Your task to perform on an android device: Show me popular videos on Youtube Image 0: 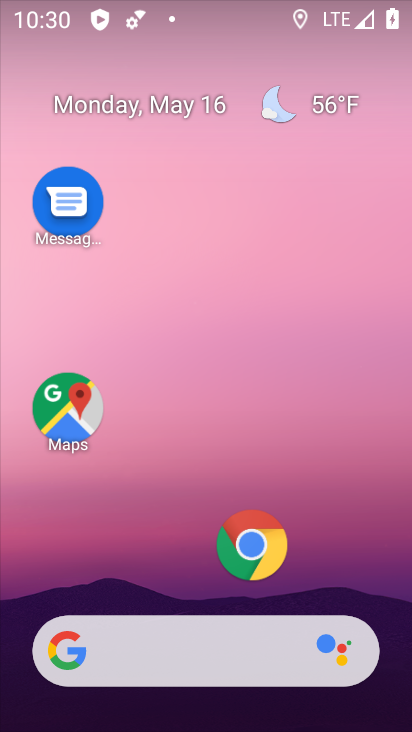
Step 0: drag from (175, 591) to (86, 5)
Your task to perform on an android device: Show me popular videos on Youtube Image 1: 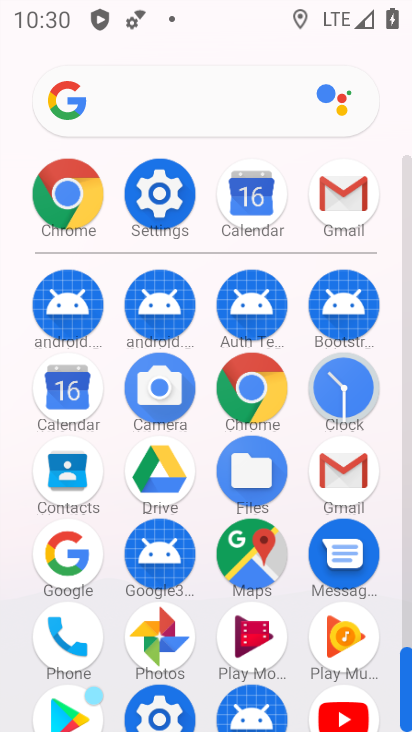
Step 1: click (326, 702)
Your task to perform on an android device: Show me popular videos on Youtube Image 2: 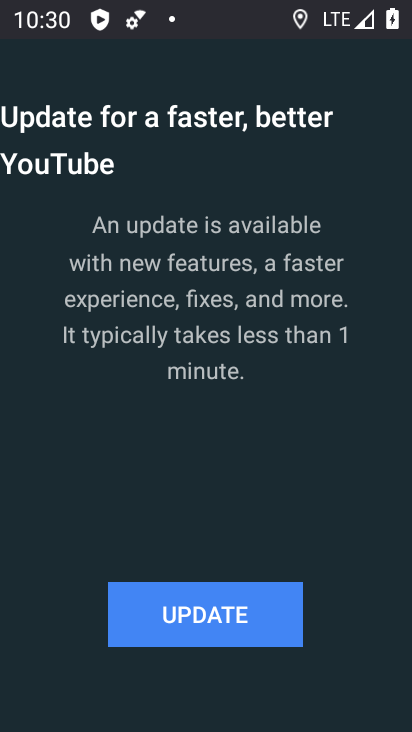
Step 2: click (142, 615)
Your task to perform on an android device: Show me popular videos on Youtube Image 3: 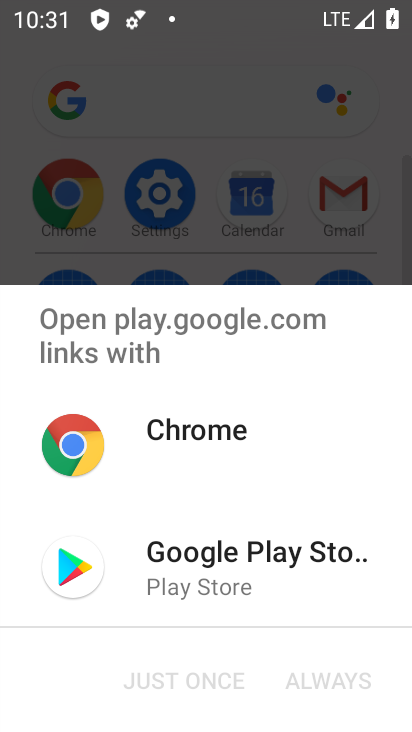
Step 3: click (216, 566)
Your task to perform on an android device: Show me popular videos on Youtube Image 4: 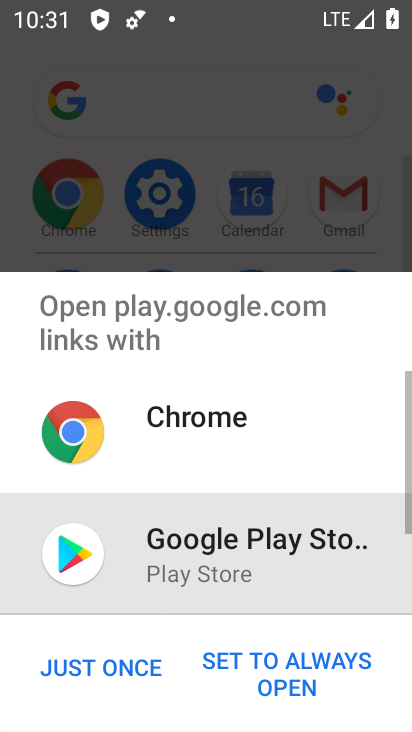
Step 4: click (70, 669)
Your task to perform on an android device: Show me popular videos on Youtube Image 5: 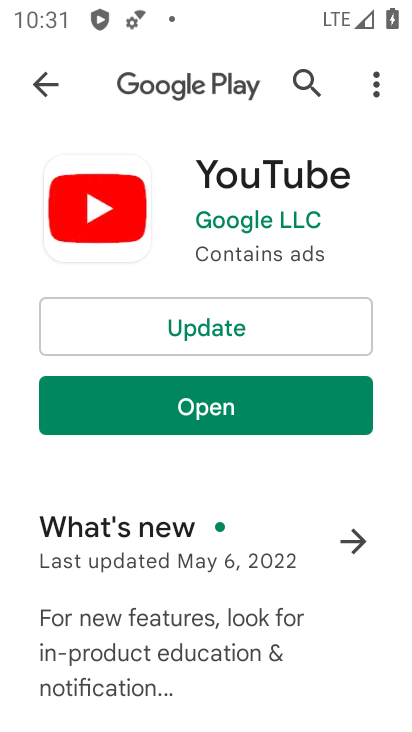
Step 5: click (168, 348)
Your task to perform on an android device: Show me popular videos on Youtube Image 6: 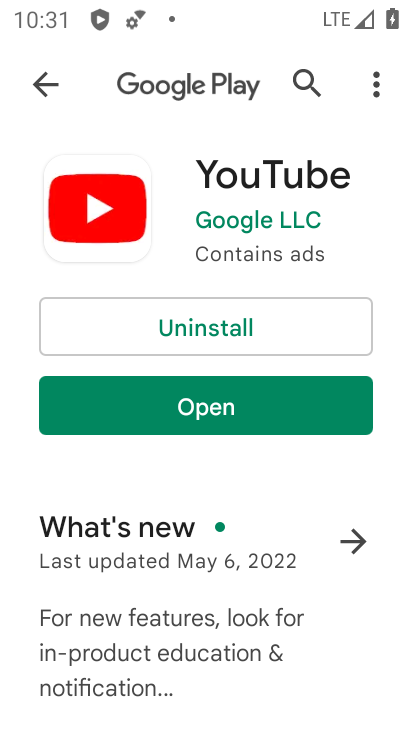
Step 6: click (191, 422)
Your task to perform on an android device: Show me popular videos on Youtube Image 7: 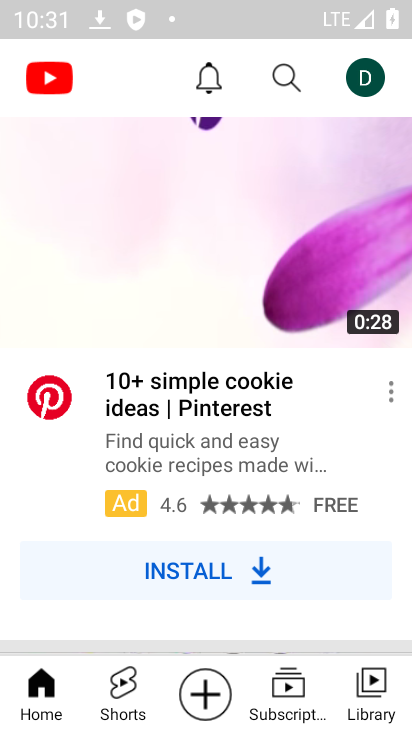
Step 7: task complete